Your task to perform on an android device: change keyboard looks Image 0: 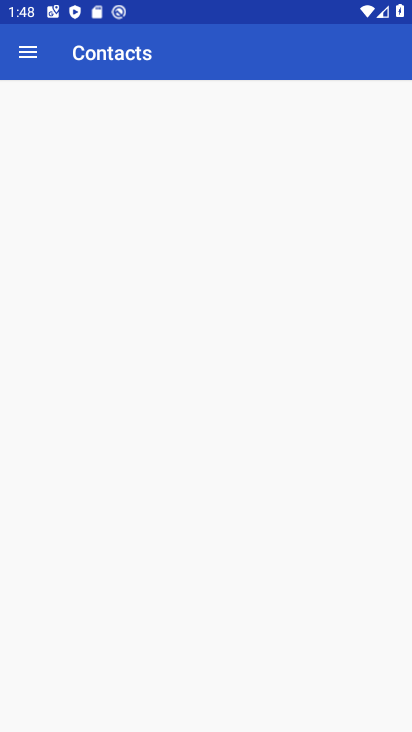
Step 0: drag from (264, 610) to (213, 229)
Your task to perform on an android device: change keyboard looks Image 1: 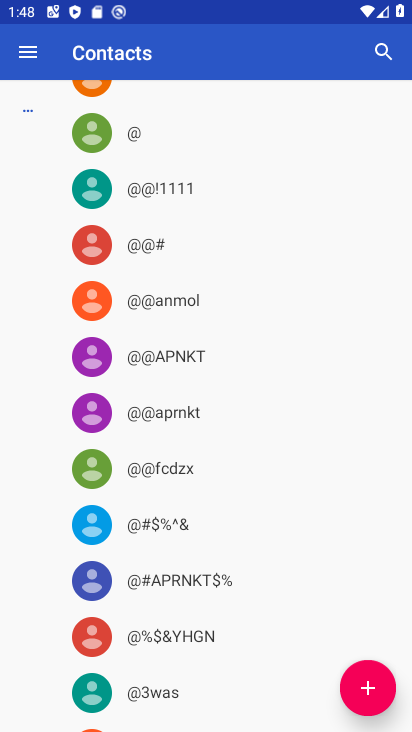
Step 1: press home button
Your task to perform on an android device: change keyboard looks Image 2: 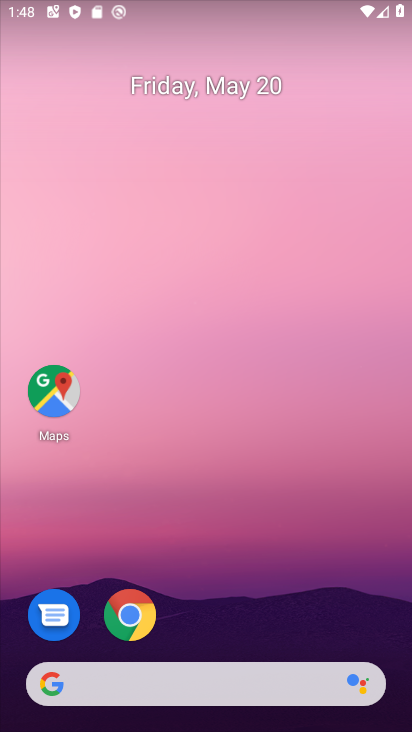
Step 2: drag from (263, 581) to (282, 260)
Your task to perform on an android device: change keyboard looks Image 3: 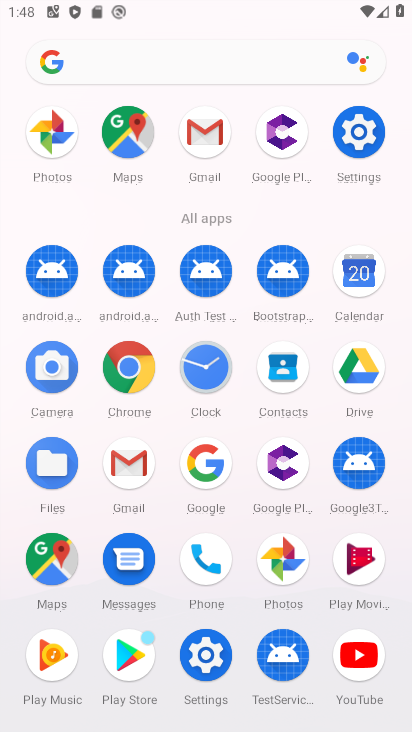
Step 3: click (210, 653)
Your task to perform on an android device: change keyboard looks Image 4: 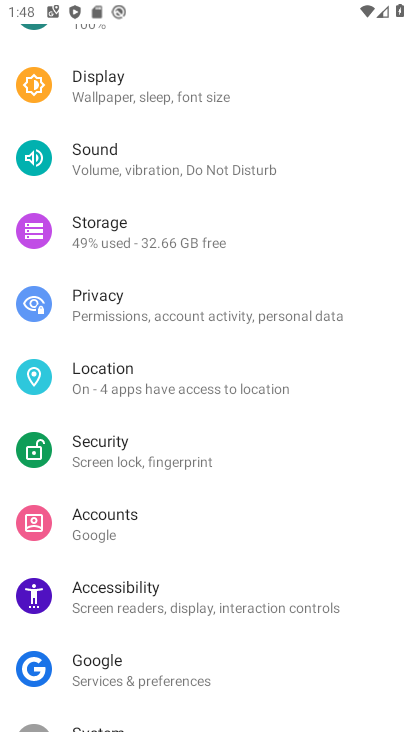
Step 4: drag from (165, 120) to (218, 552)
Your task to perform on an android device: change keyboard looks Image 5: 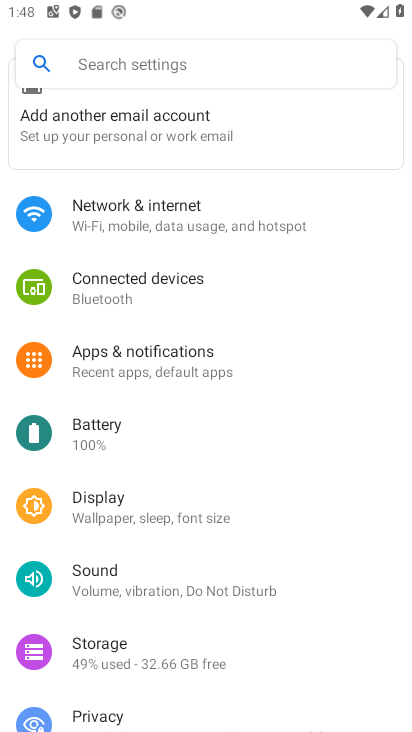
Step 5: drag from (210, 644) to (255, 197)
Your task to perform on an android device: change keyboard looks Image 6: 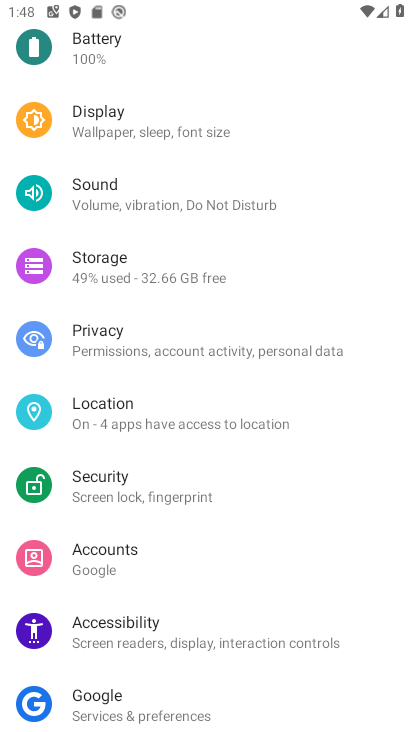
Step 6: click (161, 667)
Your task to perform on an android device: change keyboard looks Image 7: 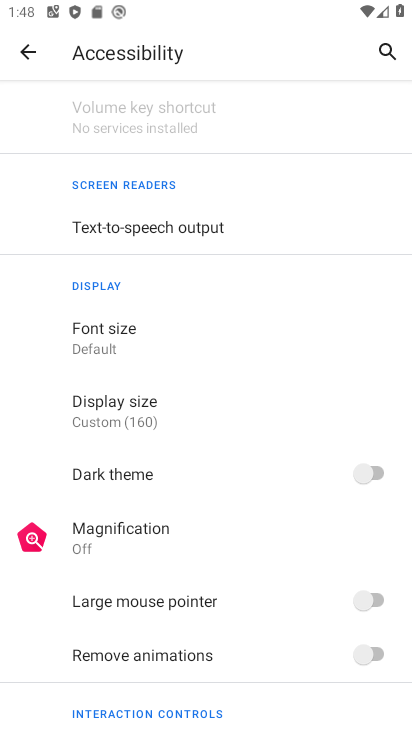
Step 7: click (33, 43)
Your task to perform on an android device: change keyboard looks Image 8: 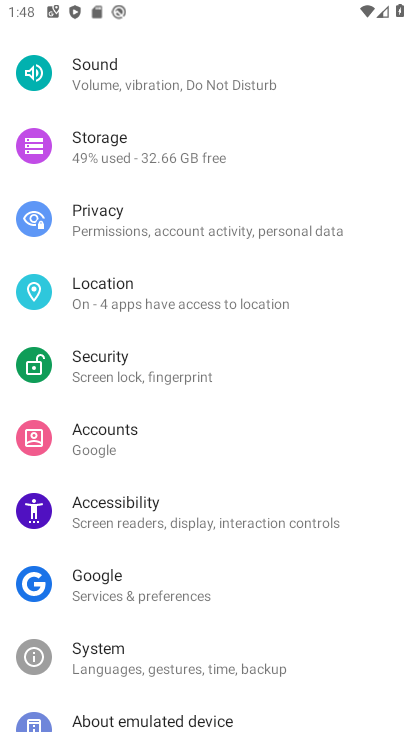
Step 8: drag from (166, 606) to (207, 232)
Your task to perform on an android device: change keyboard looks Image 9: 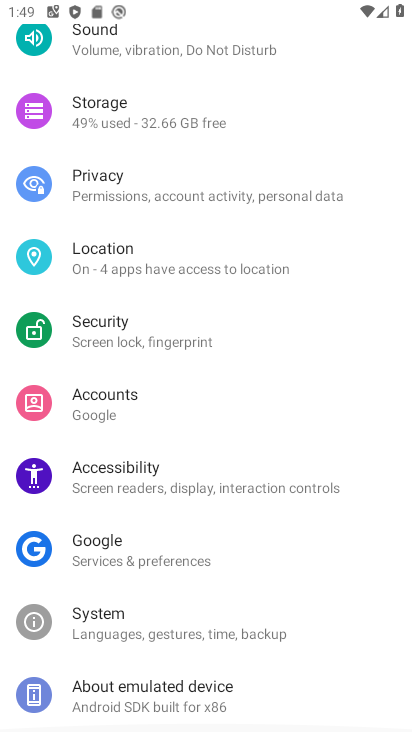
Step 9: click (140, 631)
Your task to perform on an android device: change keyboard looks Image 10: 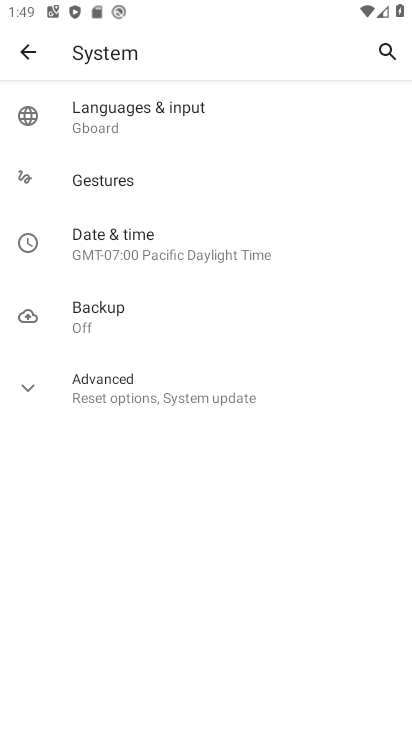
Step 10: click (96, 107)
Your task to perform on an android device: change keyboard looks Image 11: 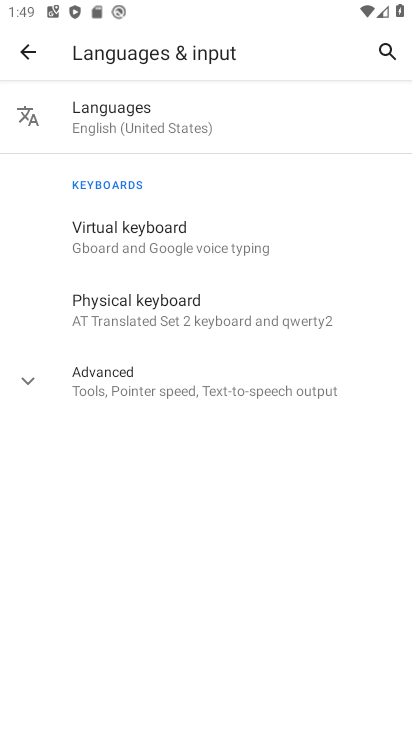
Step 11: click (163, 237)
Your task to perform on an android device: change keyboard looks Image 12: 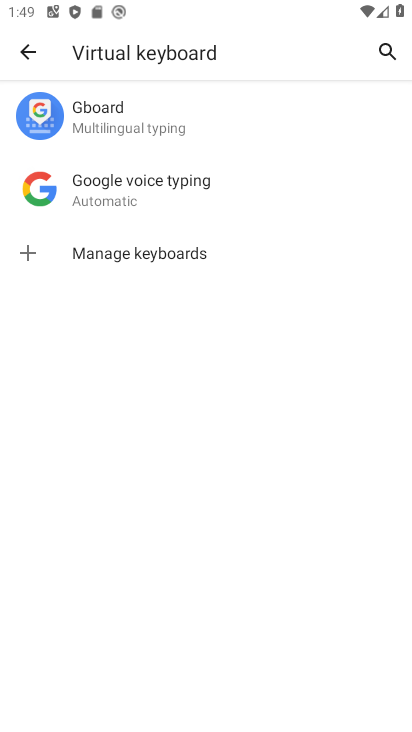
Step 12: click (121, 119)
Your task to perform on an android device: change keyboard looks Image 13: 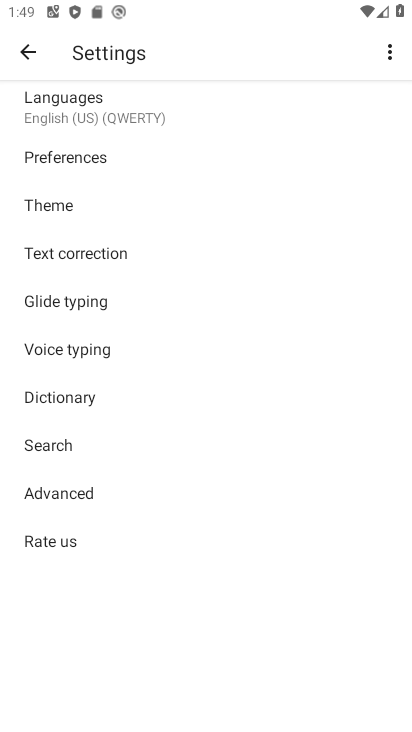
Step 13: click (60, 338)
Your task to perform on an android device: change keyboard looks Image 14: 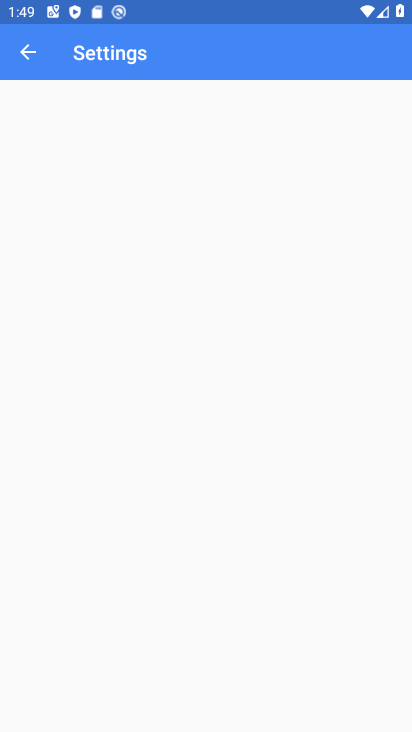
Step 14: click (21, 35)
Your task to perform on an android device: change keyboard looks Image 15: 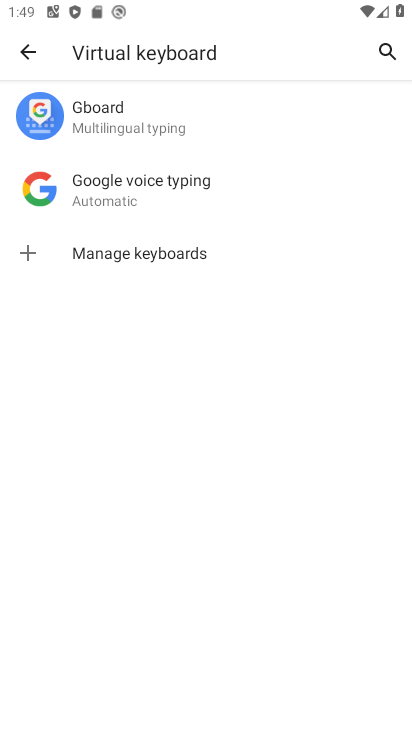
Step 15: click (105, 122)
Your task to perform on an android device: change keyboard looks Image 16: 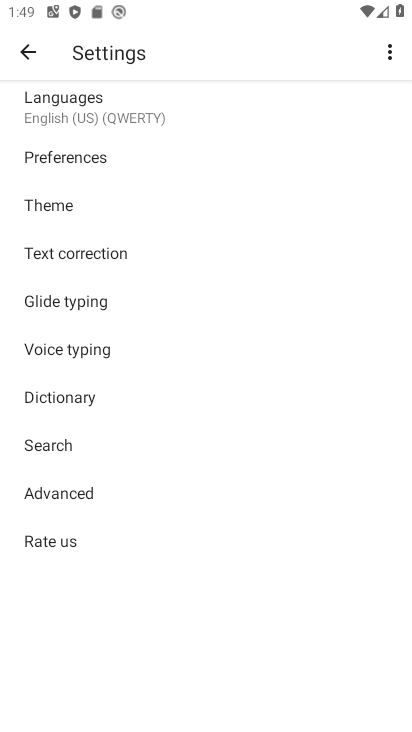
Step 16: click (109, 126)
Your task to perform on an android device: change keyboard looks Image 17: 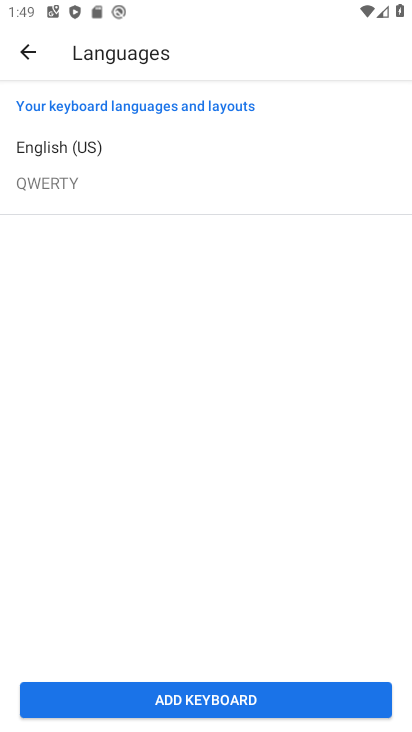
Step 17: click (32, 65)
Your task to perform on an android device: change keyboard looks Image 18: 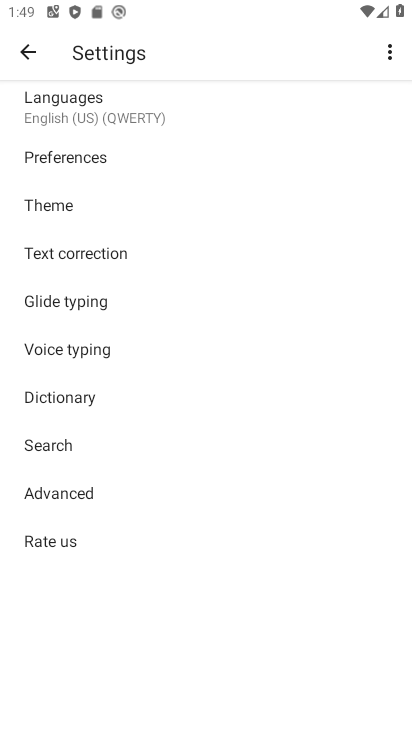
Step 18: click (78, 205)
Your task to perform on an android device: change keyboard looks Image 19: 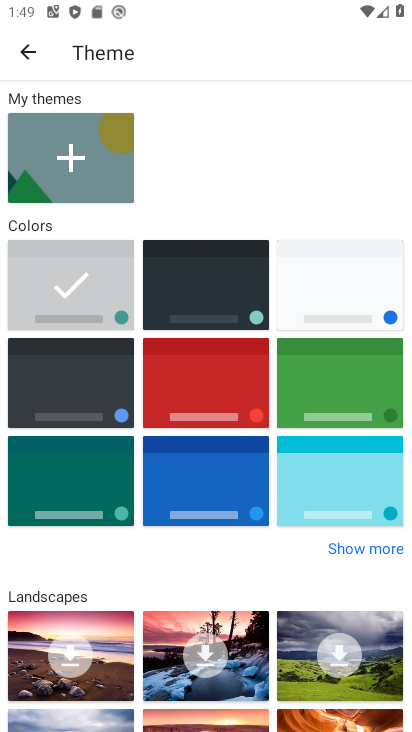
Step 19: click (130, 409)
Your task to perform on an android device: change keyboard looks Image 20: 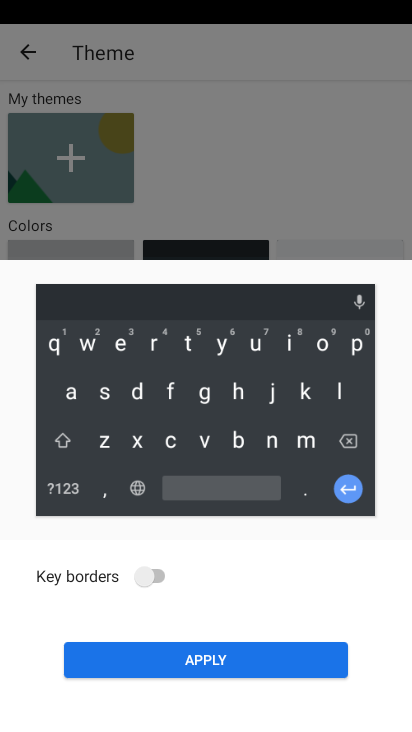
Step 20: click (157, 562)
Your task to perform on an android device: change keyboard looks Image 21: 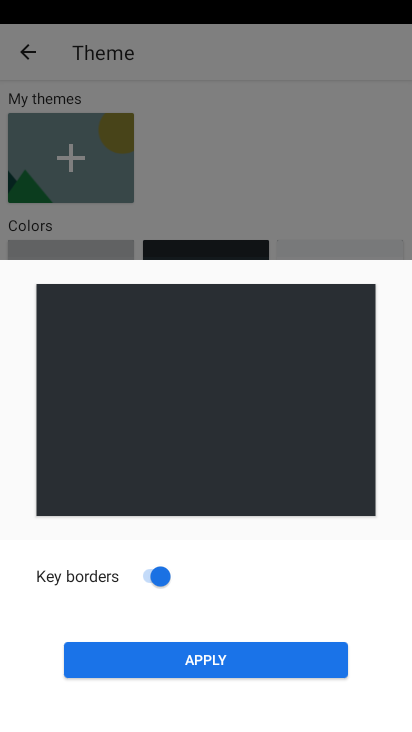
Step 21: click (200, 662)
Your task to perform on an android device: change keyboard looks Image 22: 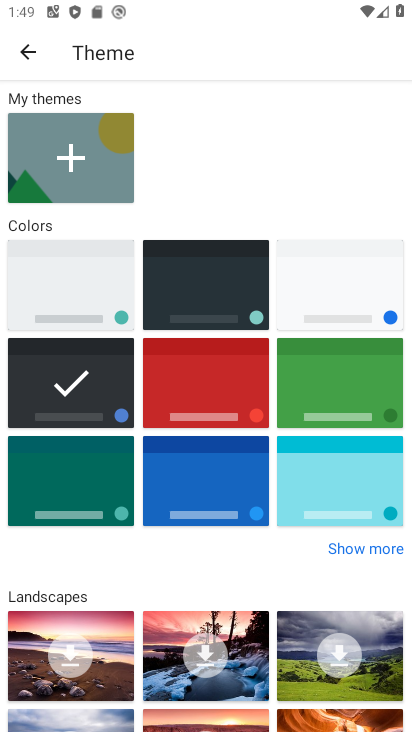
Step 22: task complete